Your task to perform on an android device: Open Google Chrome and click the shortcut for Amazon.com Image 0: 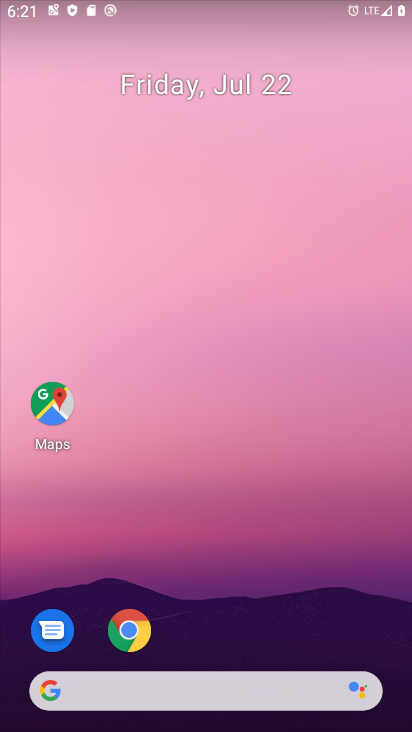
Step 0: drag from (264, 689) to (284, 241)
Your task to perform on an android device: Open Google Chrome and click the shortcut for Amazon.com Image 1: 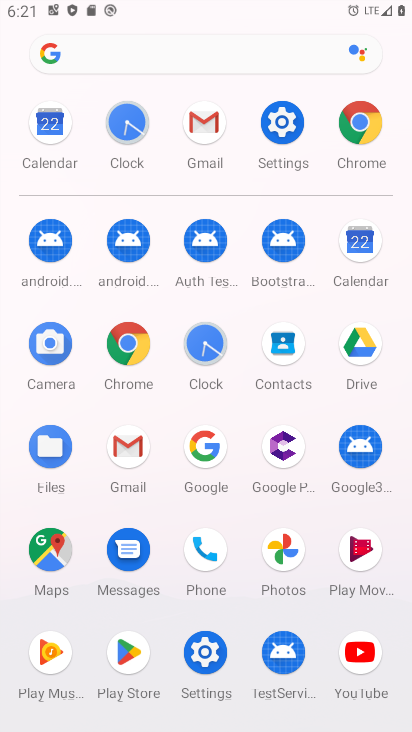
Step 1: click (122, 339)
Your task to perform on an android device: Open Google Chrome and click the shortcut for Amazon.com Image 2: 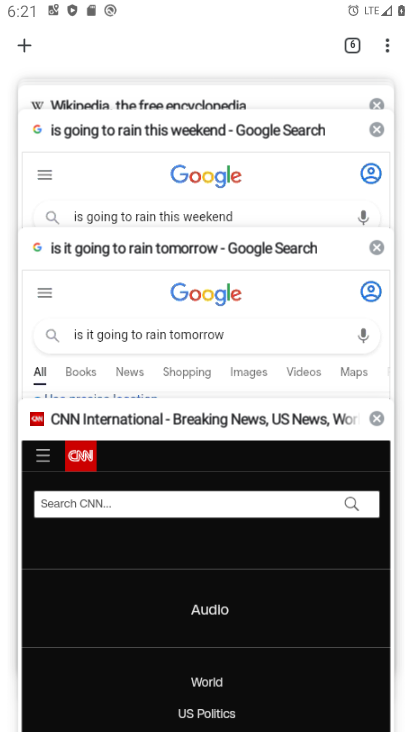
Step 2: drag from (392, 41) to (332, 46)
Your task to perform on an android device: Open Google Chrome and click the shortcut for Amazon.com Image 3: 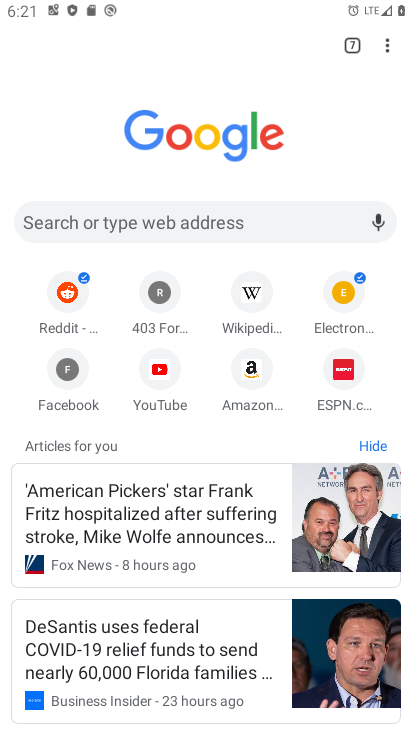
Step 3: click (253, 378)
Your task to perform on an android device: Open Google Chrome and click the shortcut for Amazon.com Image 4: 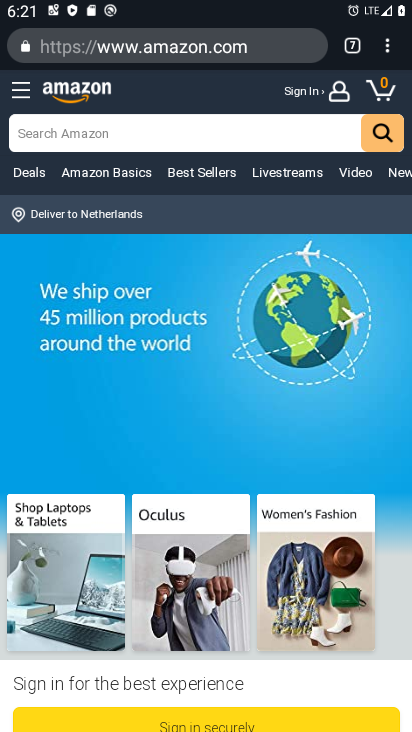
Step 4: click (387, 50)
Your task to perform on an android device: Open Google Chrome and click the shortcut for Amazon.com Image 5: 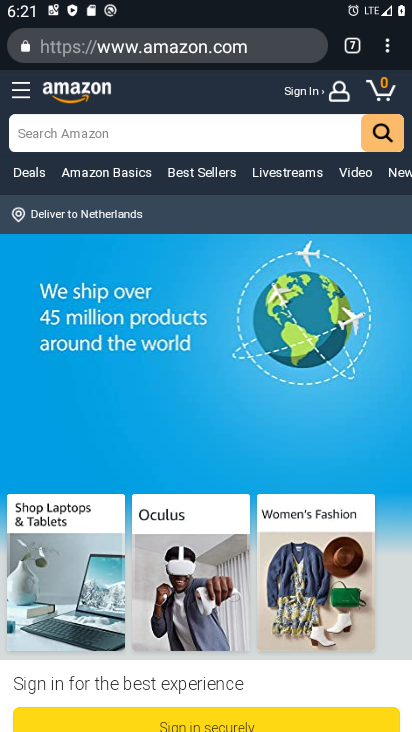
Step 5: drag from (390, 33) to (245, 449)
Your task to perform on an android device: Open Google Chrome and click the shortcut for Amazon.com Image 6: 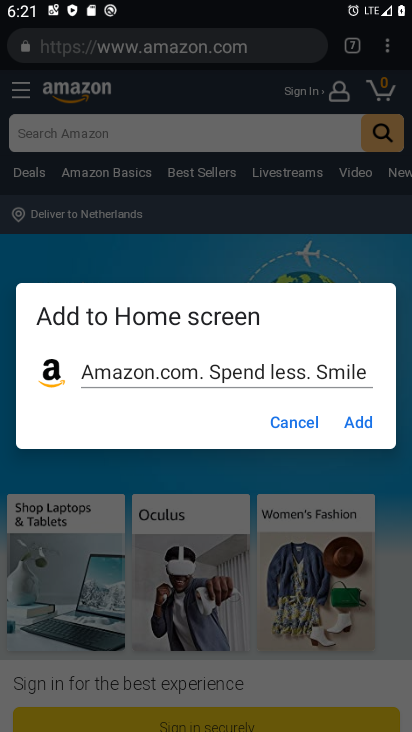
Step 6: click (366, 414)
Your task to perform on an android device: Open Google Chrome and click the shortcut for Amazon.com Image 7: 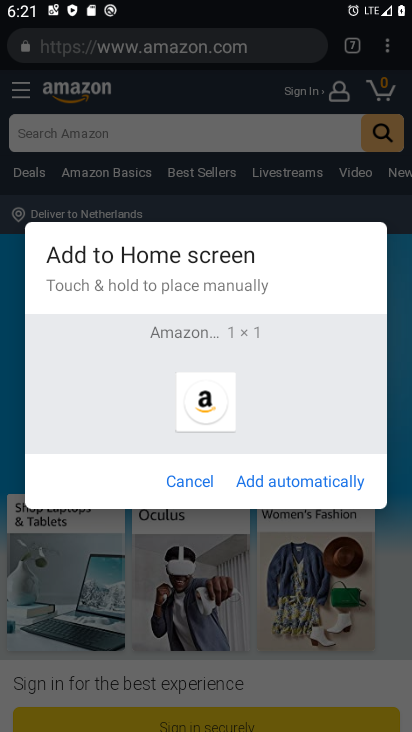
Step 7: click (315, 480)
Your task to perform on an android device: Open Google Chrome and click the shortcut for Amazon.com Image 8: 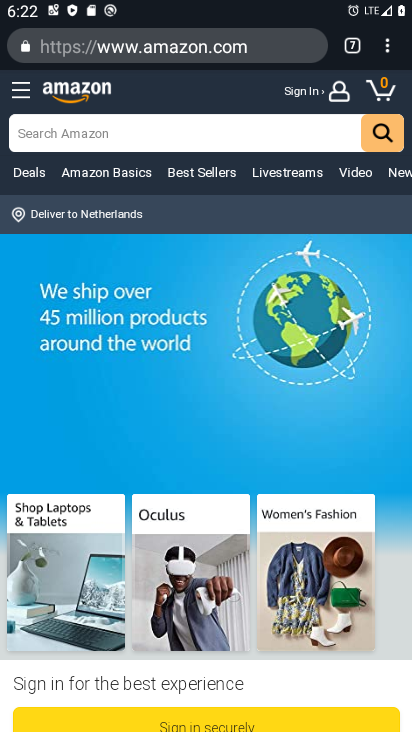
Step 8: task complete